Your task to perform on an android device: refresh tabs in the chrome app Image 0: 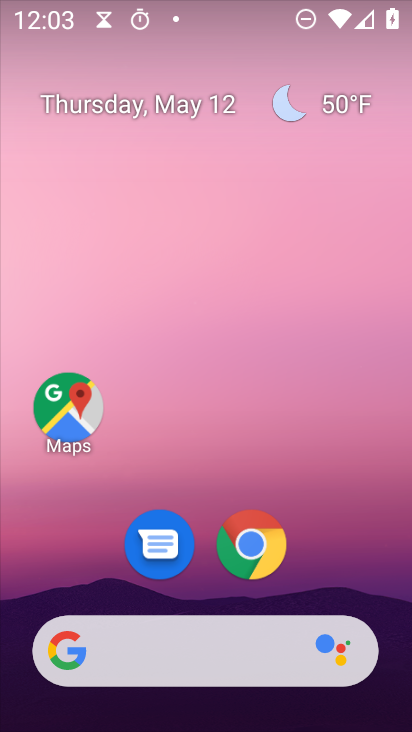
Step 0: click (263, 545)
Your task to perform on an android device: refresh tabs in the chrome app Image 1: 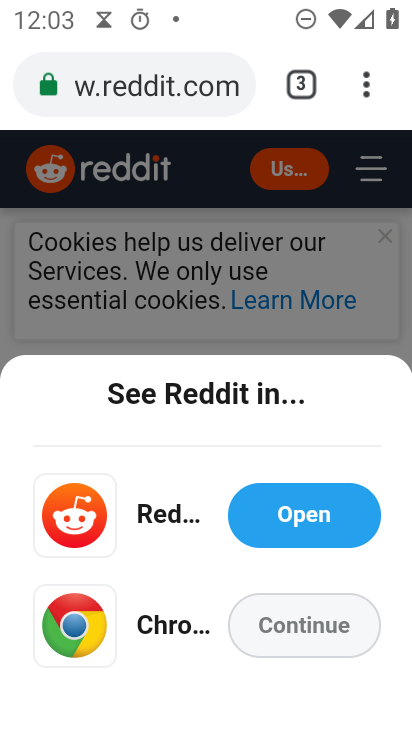
Step 1: click (382, 77)
Your task to perform on an android device: refresh tabs in the chrome app Image 2: 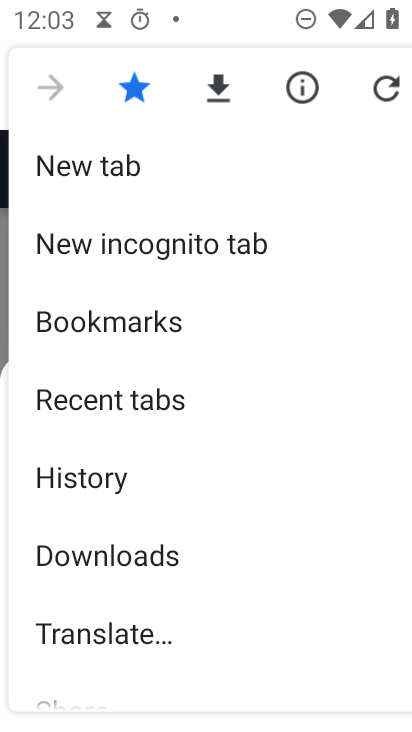
Step 2: click (382, 77)
Your task to perform on an android device: refresh tabs in the chrome app Image 3: 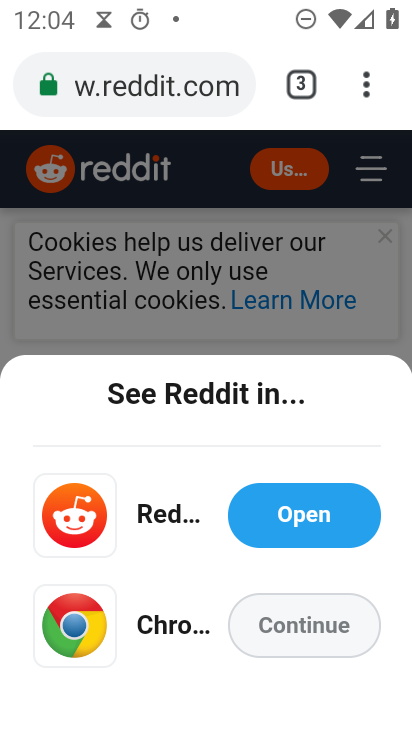
Step 3: task complete